Your task to perform on an android device: Check the news Image 0: 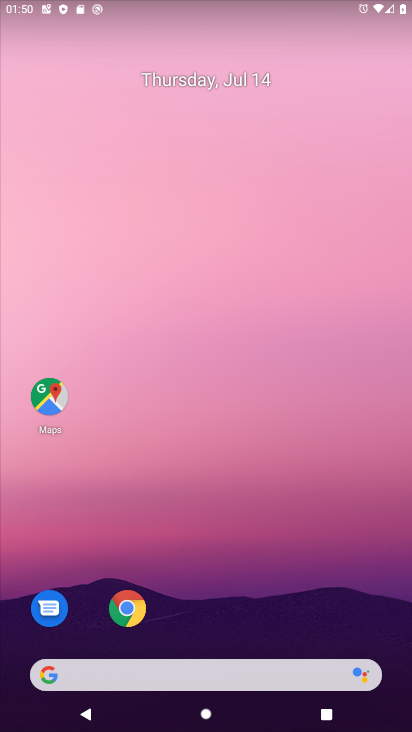
Step 0: press home button
Your task to perform on an android device: Check the news Image 1: 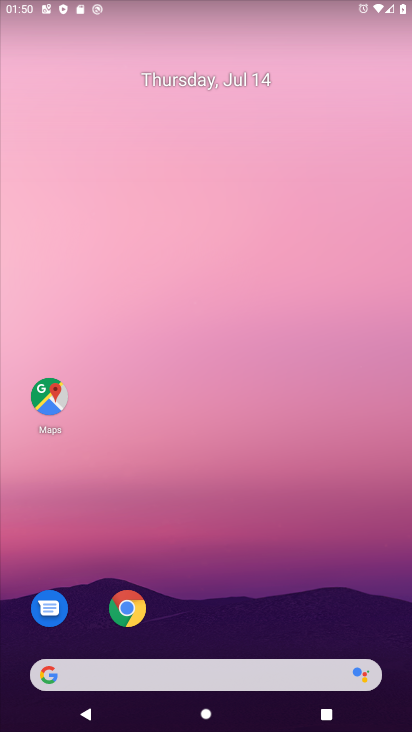
Step 1: click (144, 612)
Your task to perform on an android device: Check the news Image 2: 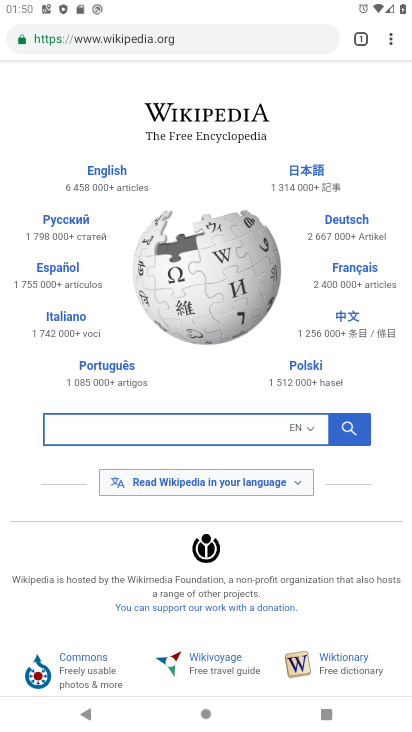
Step 2: click (201, 52)
Your task to perform on an android device: Check the news Image 3: 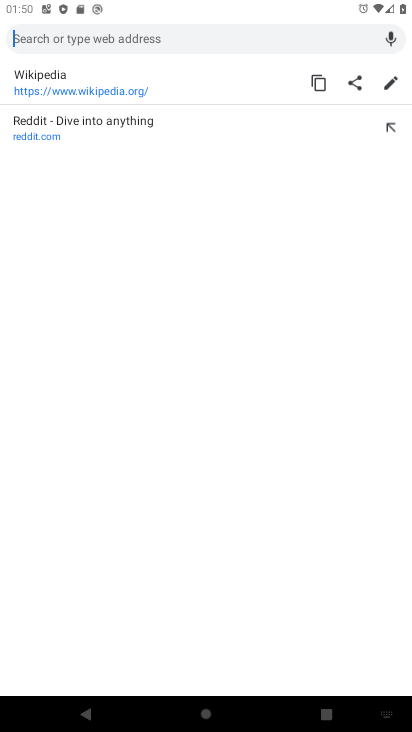
Step 3: type "news"
Your task to perform on an android device: Check the news Image 4: 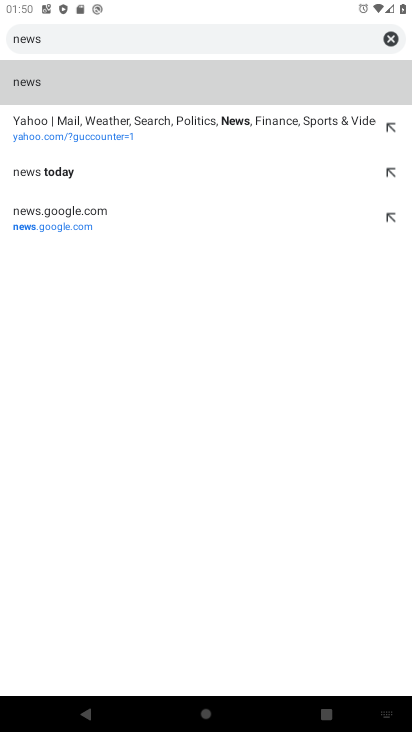
Step 4: click (123, 86)
Your task to perform on an android device: Check the news Image 5: 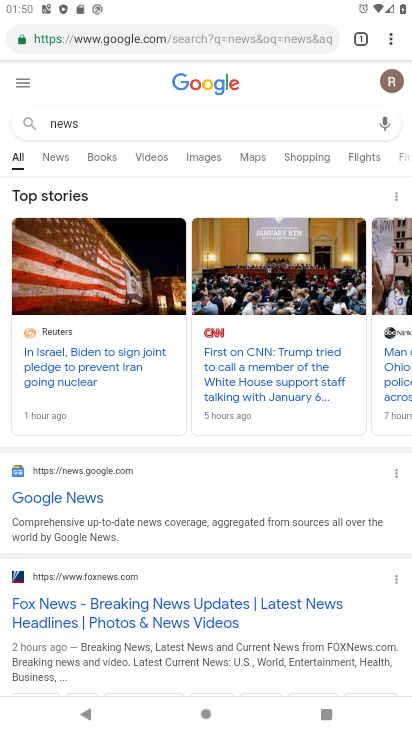
Step 5: task complete